Your task to perform on an android device: Go to calendar. Show me events next week Image 0: 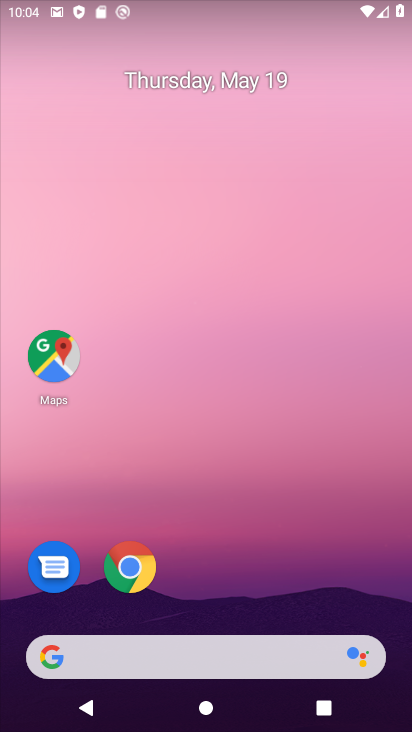
Step 0: drag from (342, 559) to (240, 5)
Your task to perform on an android device: Go to calendar. Show me events next week Image 1: 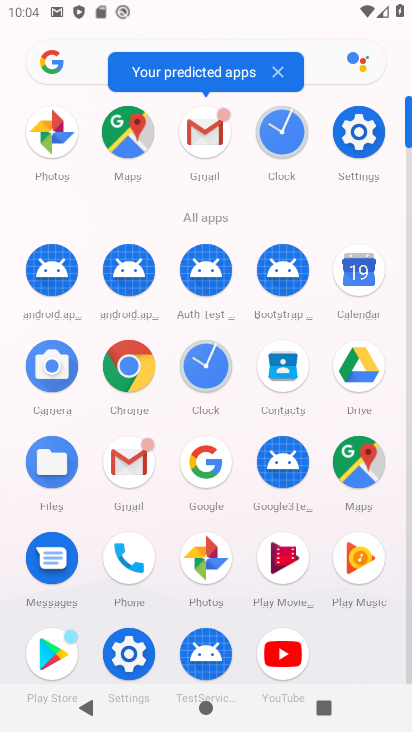
Step 1: click (366, 272)
Your task to perform on an android device: Go to calendar. Show me events next week Image 2: 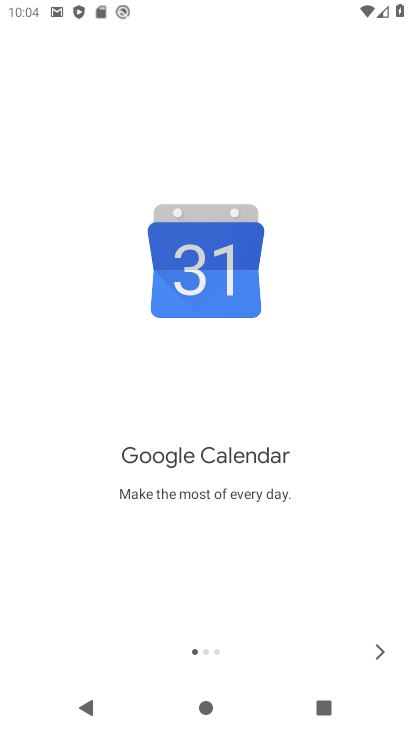
Step 2: click (372, 650)
Your task to perform on an android device: Go to calendar. Show me events next week Image 3: 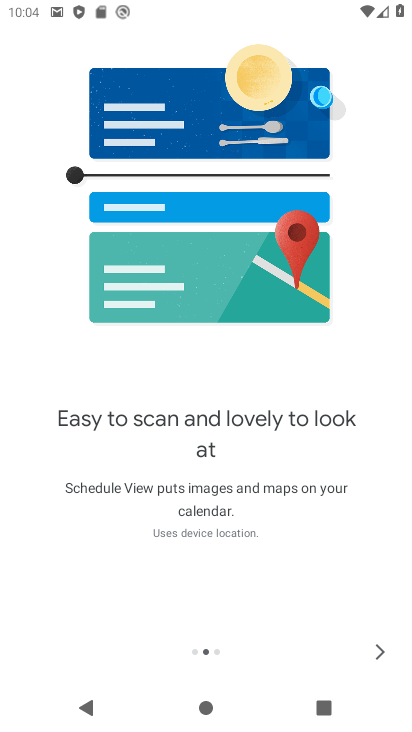
Step 3: click (372, 650)
Your task to perform on an android device: Go to calendar. Show me events next week Image 4: 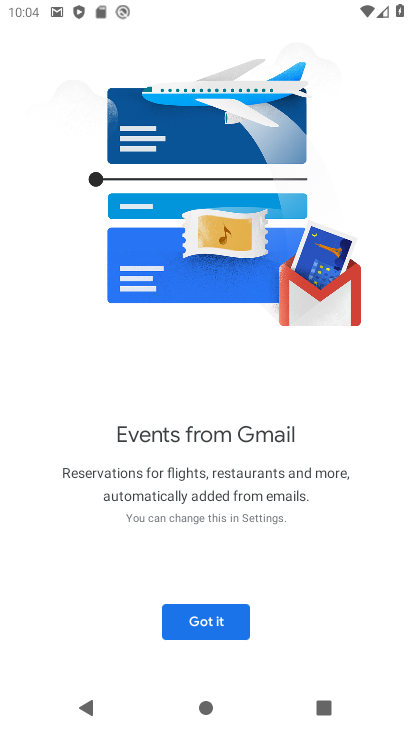
Step 4: click (203, 613)
Your task to perform on an android device: Go to calendar. Show me events next week Image 5: 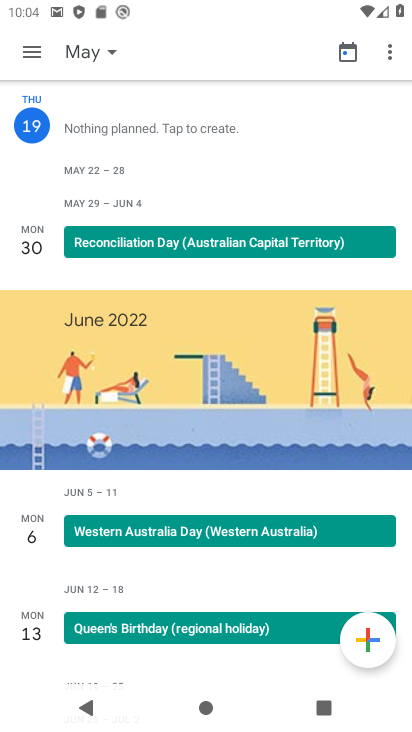
Step 5: click (95, 47)
Your task to perform on an android device: Go to calendar. Show me events next week Image 6: 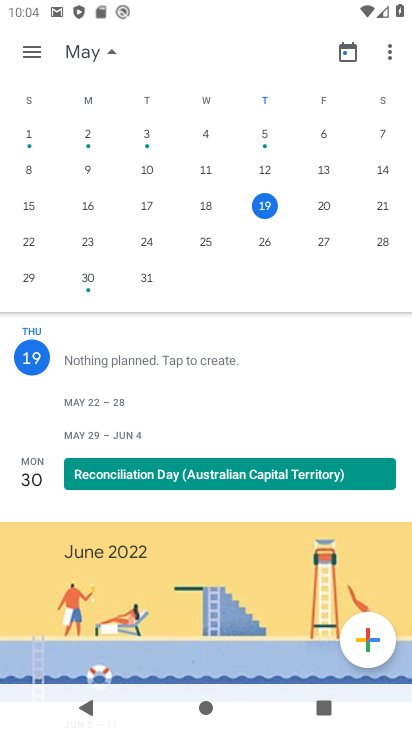
Step 6: click (86, 245)
Your task to perform on an android device: Go to calendar. Show me events next week Image 7: 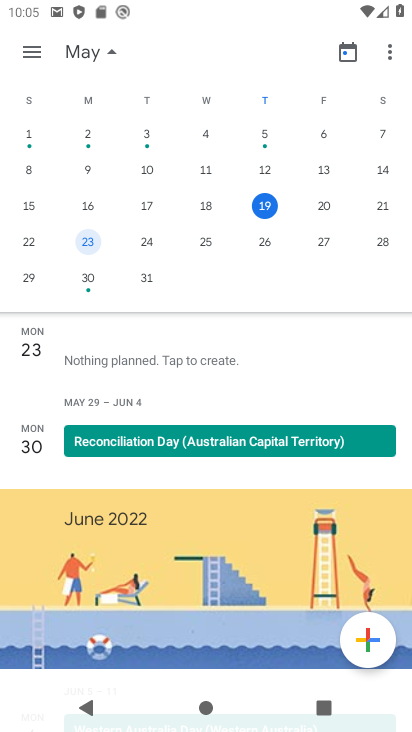
Step 7: drag from (142, 378) to (208, 53)
Your task to perform on an android device: Go to calendar. Show me events next week Image 8: 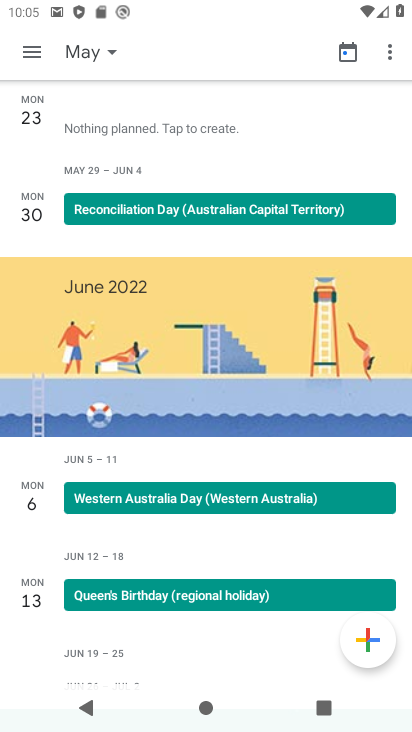
Step 8: drag from (118, 280) to (130, 345)
Your task to perform on an android device: Go to calendar. Show me events next week Image 9: 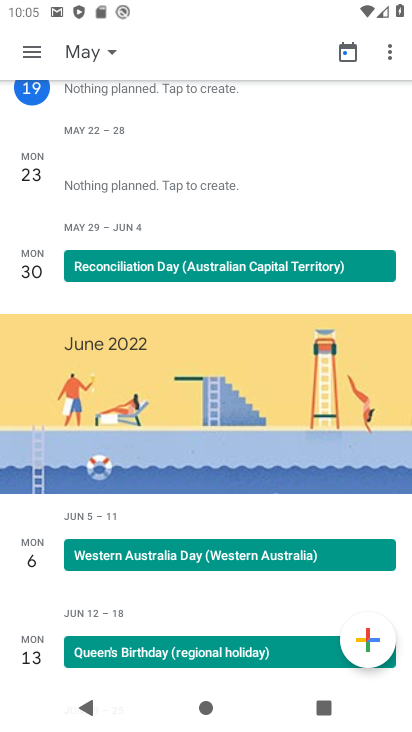
Step 9: click (34, 55)
Your task to perform on an android device: Go to calendar. Show me events next week Image 10: 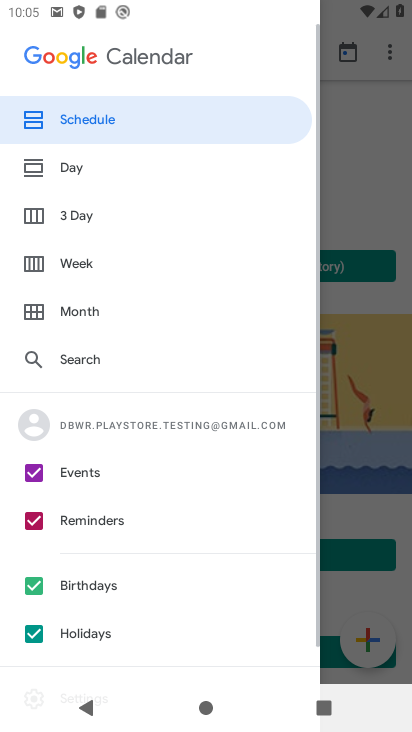
Step 10: click (84, 277)
Your task to perform on an android device: Go to calendar. Show me events next week Image 11: 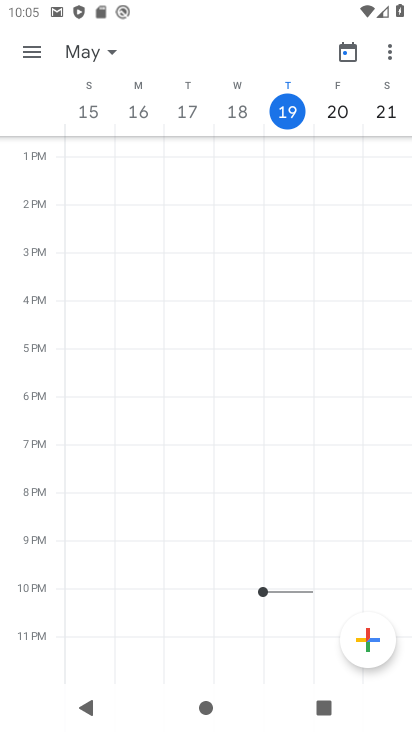
Step 11: click (113, 51)
Your task to perform on an android device: Go to calendar. Show me events next week Image 12: 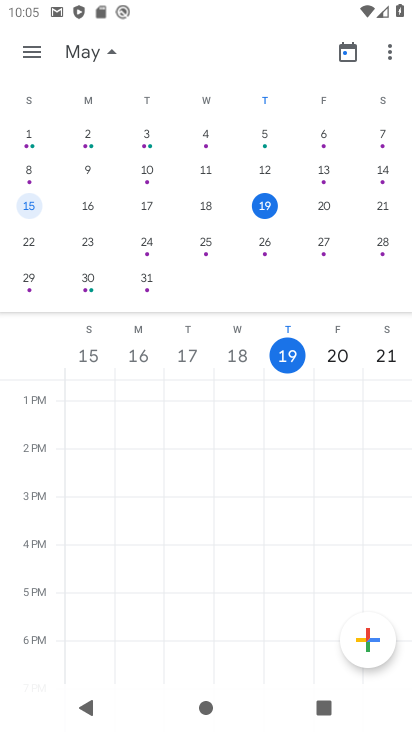
Step 12: click (89, 240)
Your task to perform on an android device: Go to calendar. Show me events next week Image 13: 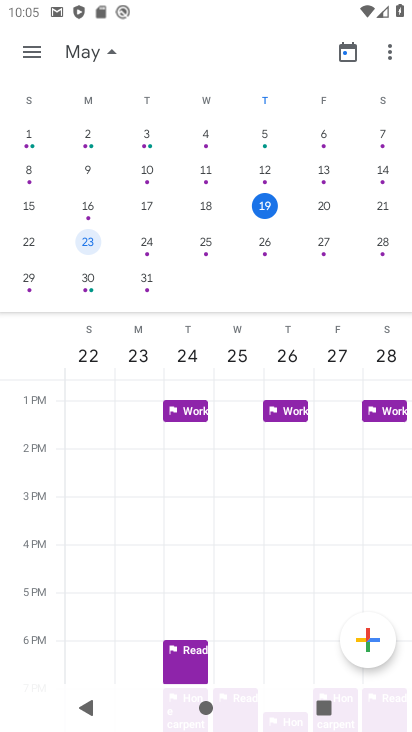
Step 13: task complete